Your task to perform on an android device: open device folders in google photos Image 0: 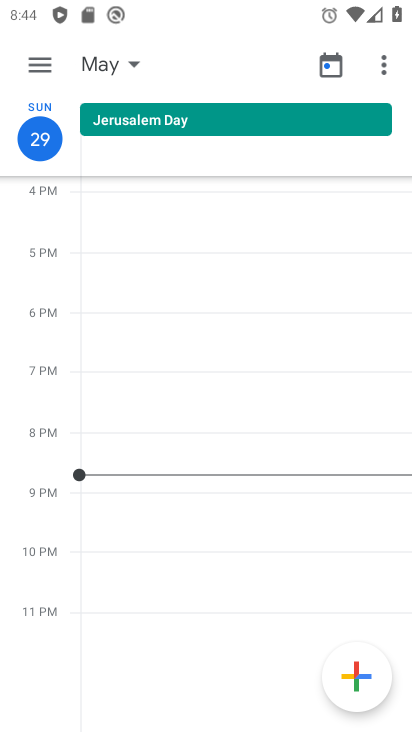
Step 0: press home button
Your task to perform on an android device: open device folders in google photos Image 1: 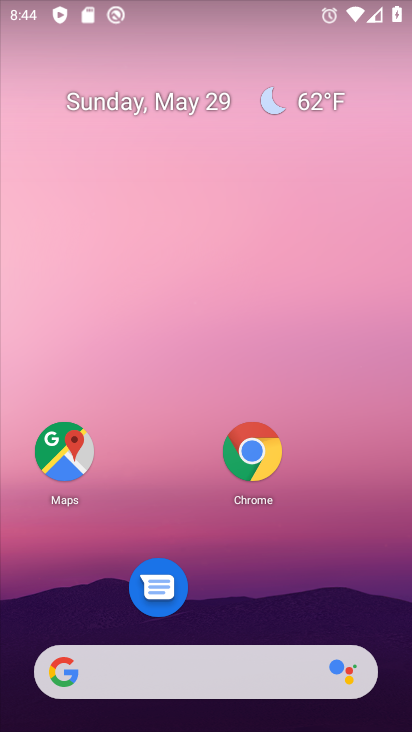
Step 1: drag from (218, 602) to (149, 36)
Your task to perform on an android device: open device folders in google photos Image 2: 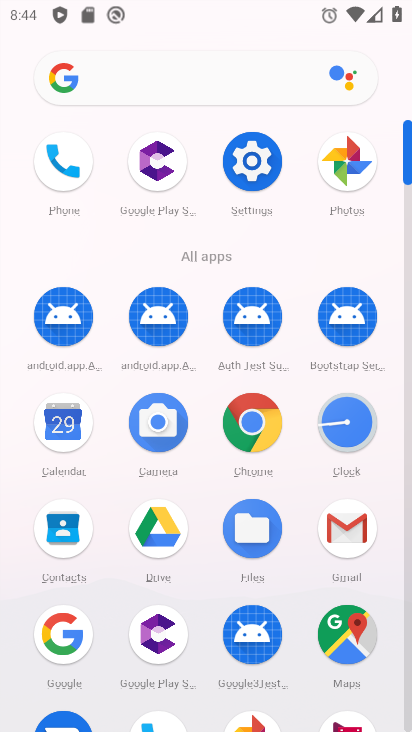
Step 2: click (368, 155)
Your task to perform on an android device: open device folders in google photos Image 3: 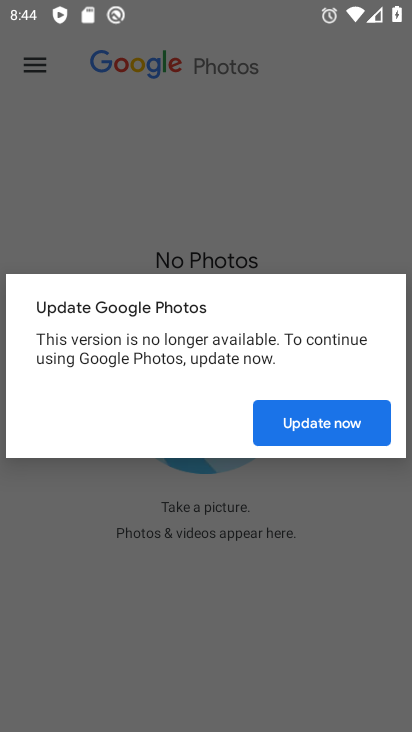
Step 3: click (368, 400)
Your task to perform on an android device: open device folders in google photos Image 4: 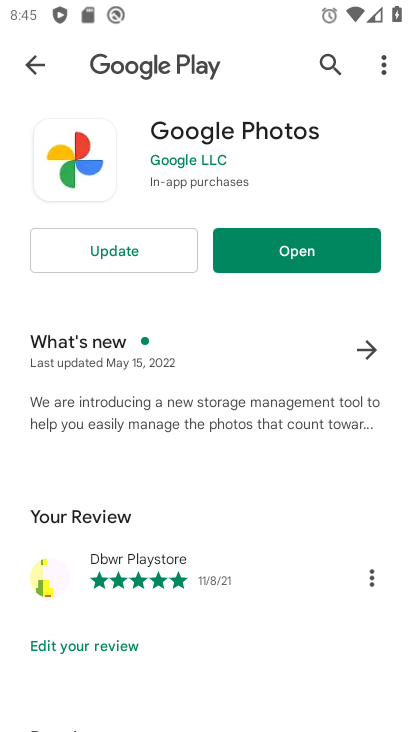
Step 4: click (263, 237)
Your task to perform on an android device: open device folders in google photos Image 5: 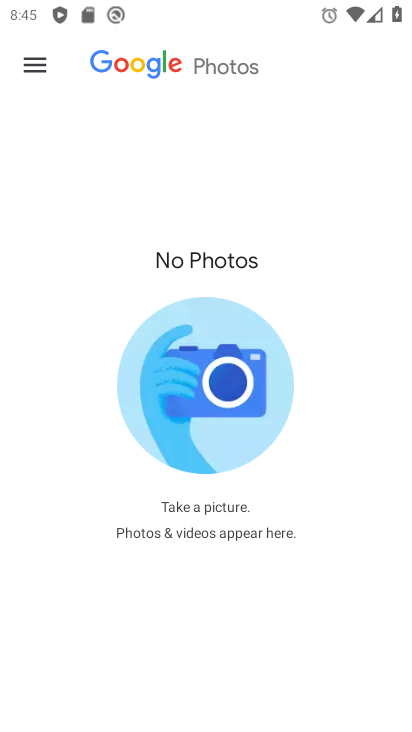
Step 5: click (28, 74)
Your task to perform on an android device: open device folders in google photos Image 6: 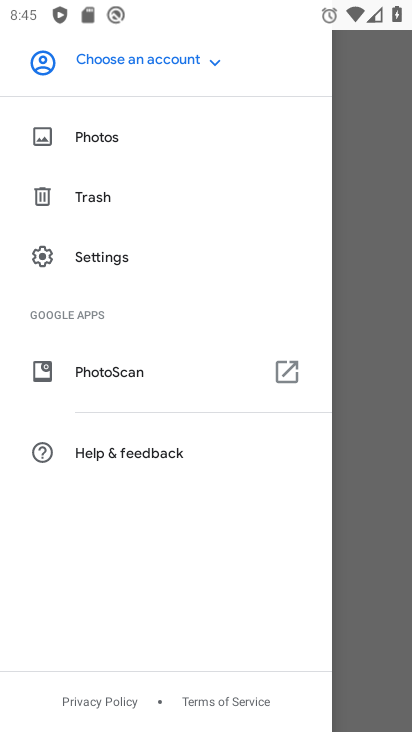
Step 6: click (135, 63)
Your task to perform on an android device: open device folders in google photos Image 7: 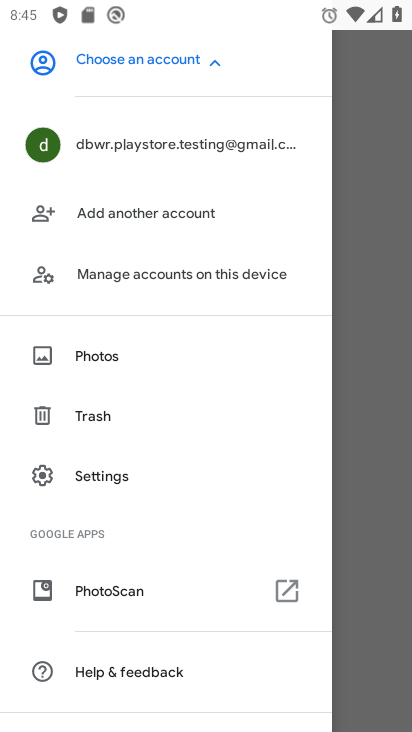
Step 7: click (148, 150)
Your task to perform on an android device: open device folders in google photos Image 8: 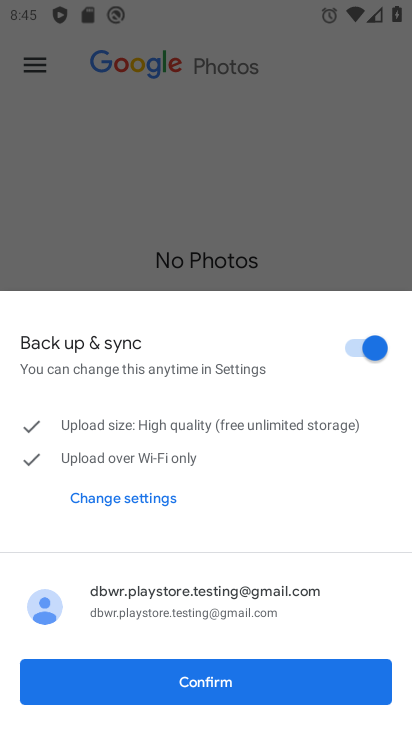
Step 8: click (205, 677)
Your task to perform on an android device: open device folders in google photos Image 9: 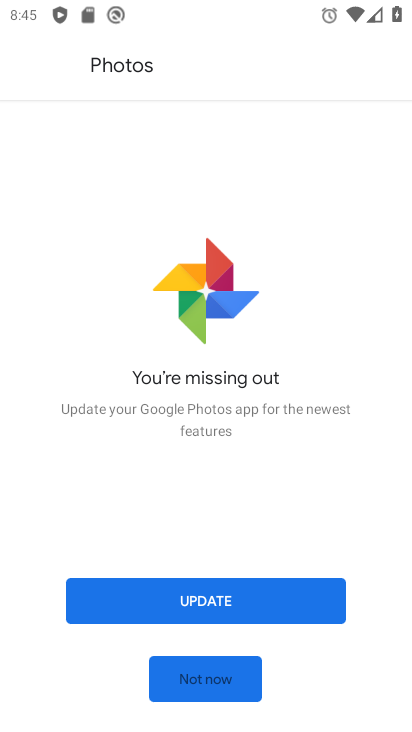
Step 9: click (204, 689)
Your task to perform on an android device: open device folders in google photos Image 10: 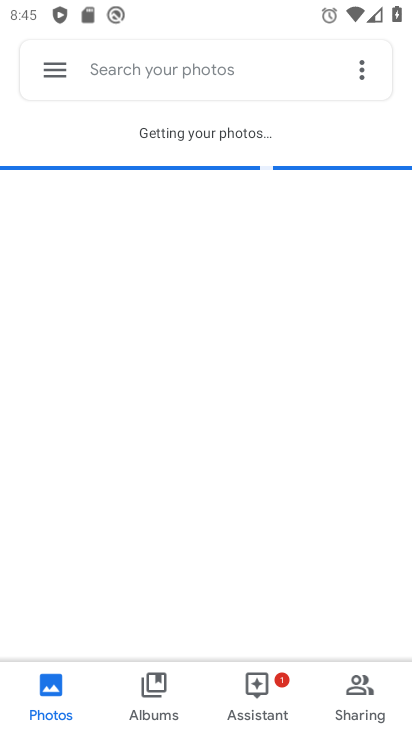
Step 10: click (61, 73)
Your task to perform on an android device: open device folders in google photos Image 11: 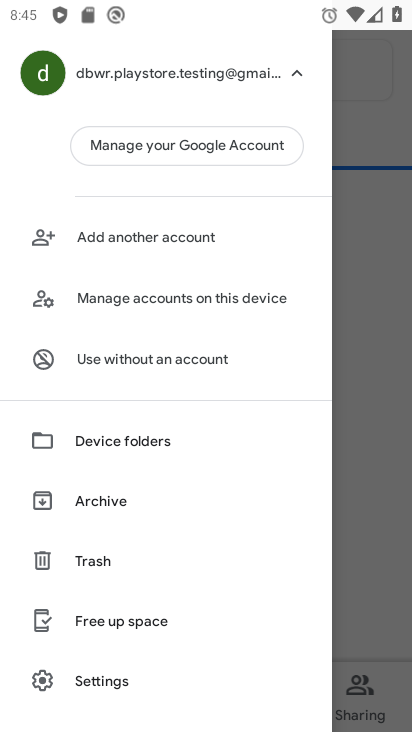
Step 11: click (188, 435)
Your task to perform on an android device: open device folders in google photos Image 12: 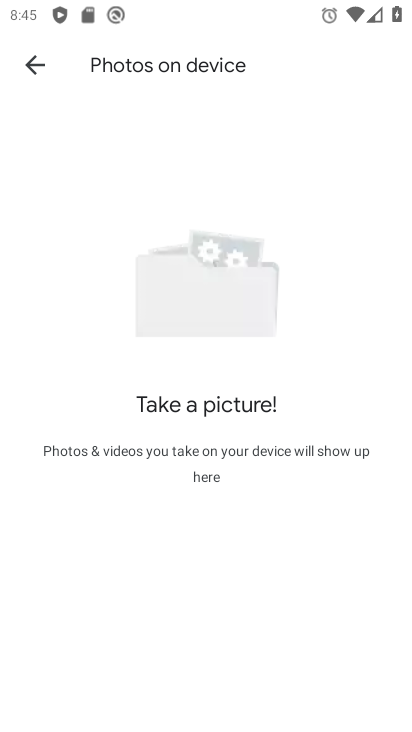
Step 12: task complete